Your task to perform on an android device: Go to Android settings Image 0: 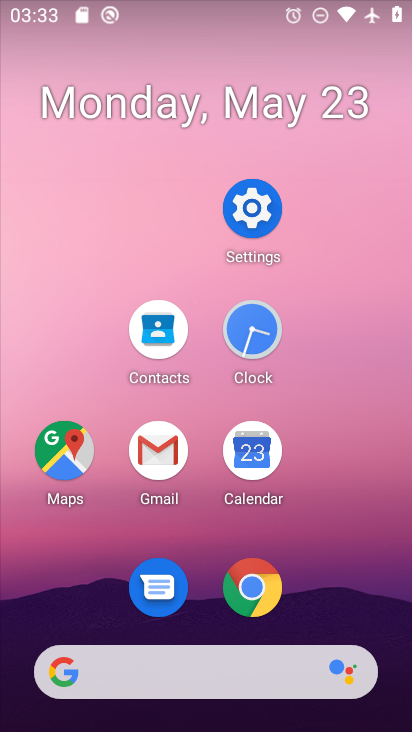
Step 0: click (258, 239)
Your task to perform on an android device: Go to Android settings Image 1: 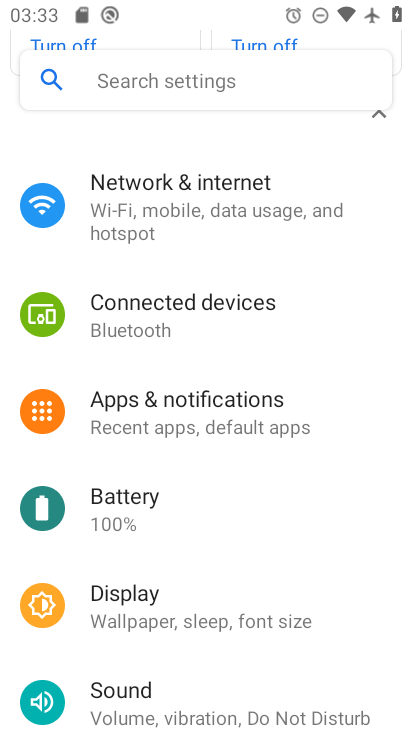
Step 1: task complete